Your task to perform on an android device: delete location history Image 0: 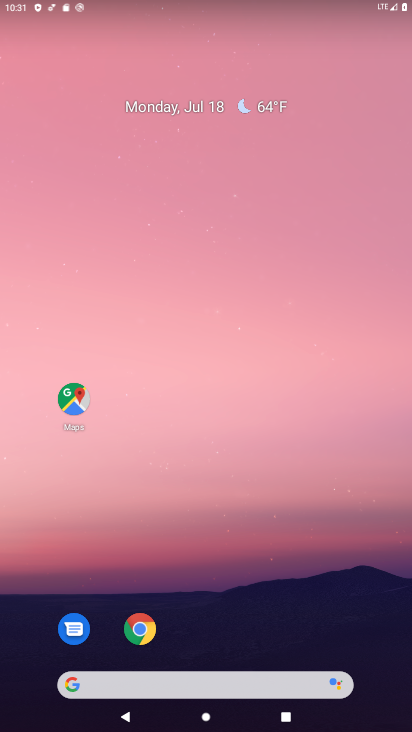
Step 0: drag from (350, 551) to (315, 24)
Your task to perform on an android device: delete location history Image 1: 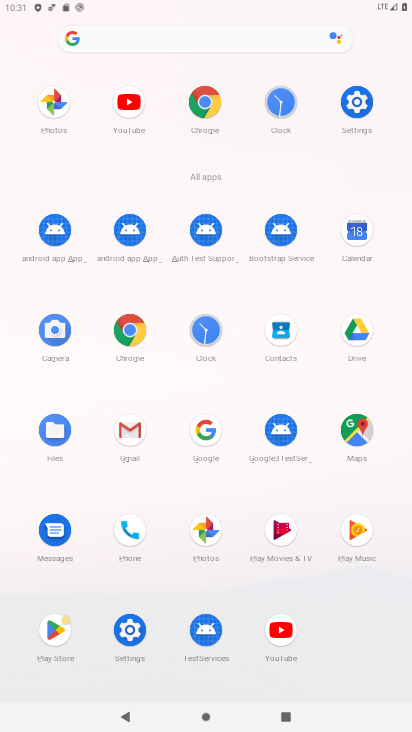
Step 1: click (125, 632)
Your task to perform on an android device: delete location history Image 2: 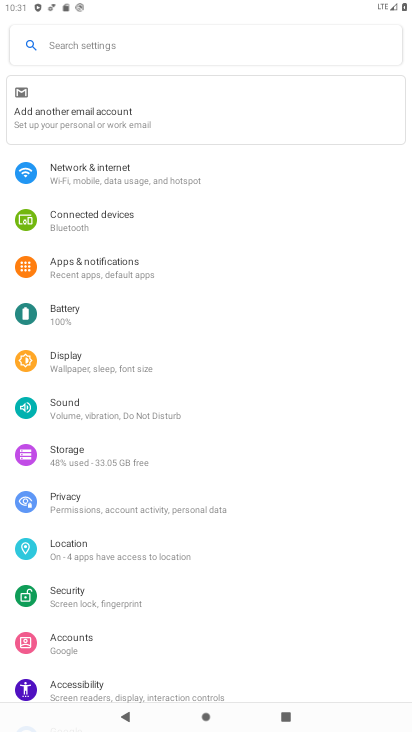
Step 2: click (135, 540)
Your task to perform on an android device: delete location history Image 3: 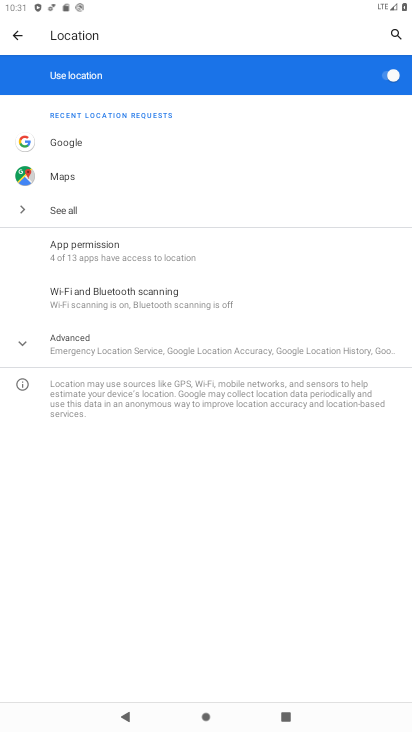
Step 3: click (46, 335)
Your task to perform on an android device: delete location history Image 4: 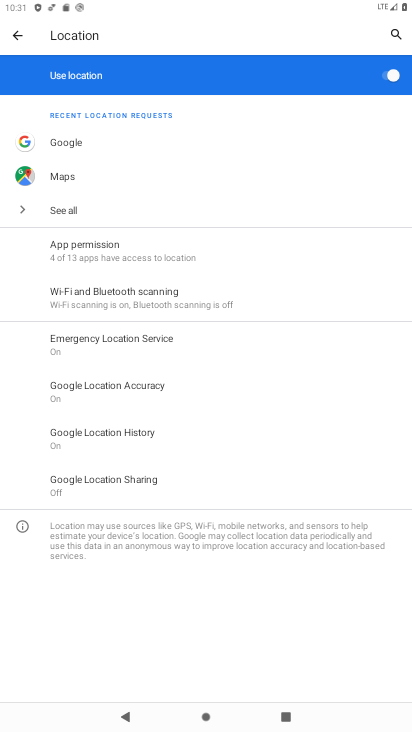
Step 4: click (122, 433)
Your task to perform on an android device: delete location history Image 5: 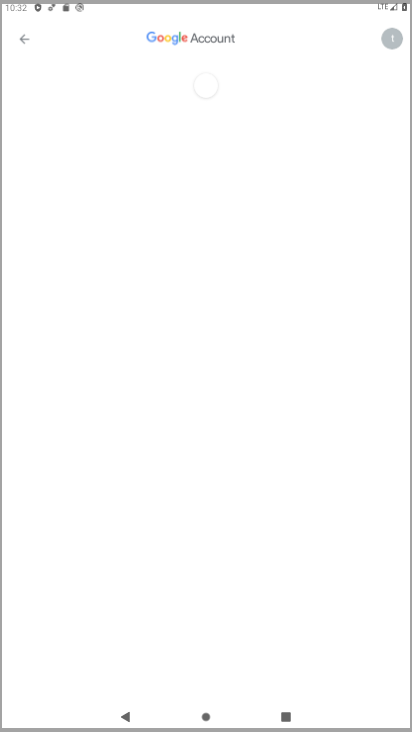
Step 5: drag from (222, 570) to (212, 70)
Your task to perform on an android device: delete location history Image 6: 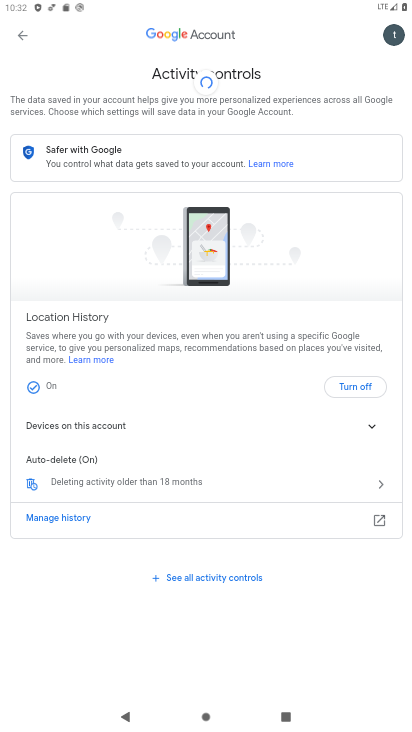
Step 6: click (73, 518)
Your task to perform on an android device: delete location history Image 7: 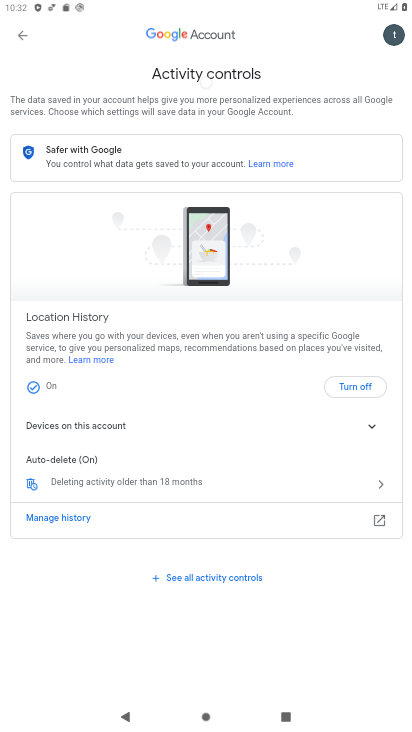
Step 7: click (73, 518)
Your task to perform on an android device: delete location history Image 8: 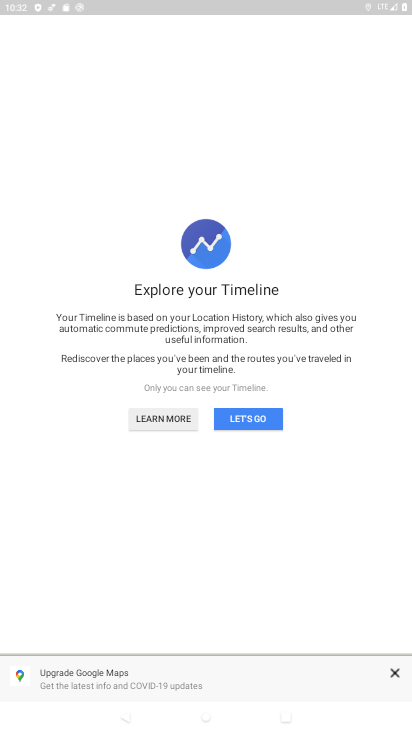
Step 8: click (255, 417)
Your task to perform on an android device: delete location history Image 9: 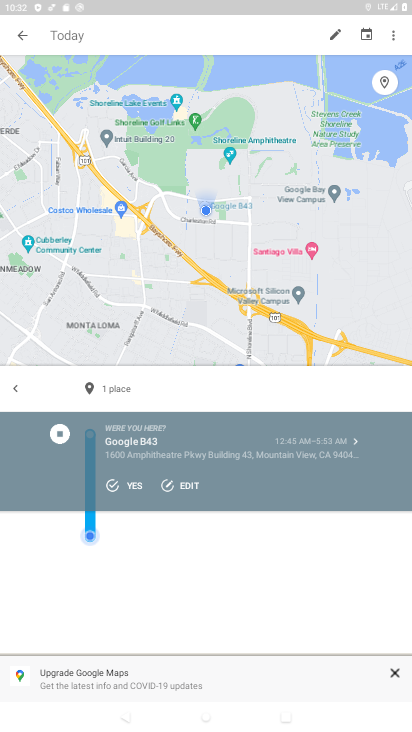
Step 9: click (389, 27)
Your task to perform on an android device: delete location history Image 10: 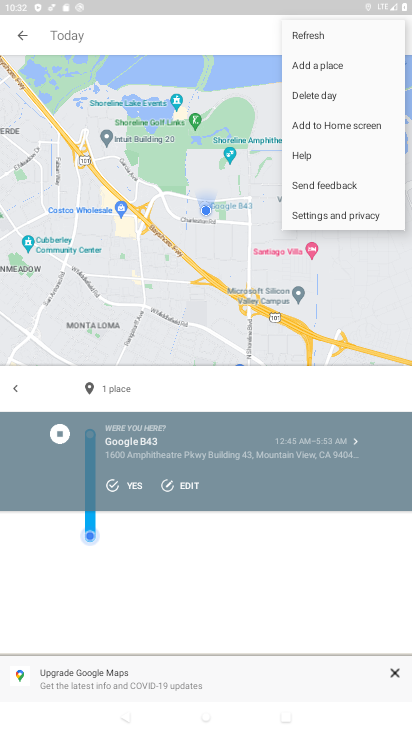
Step 10: click (308, 102)
Your task to perform on an android device: delete location history Image 11: 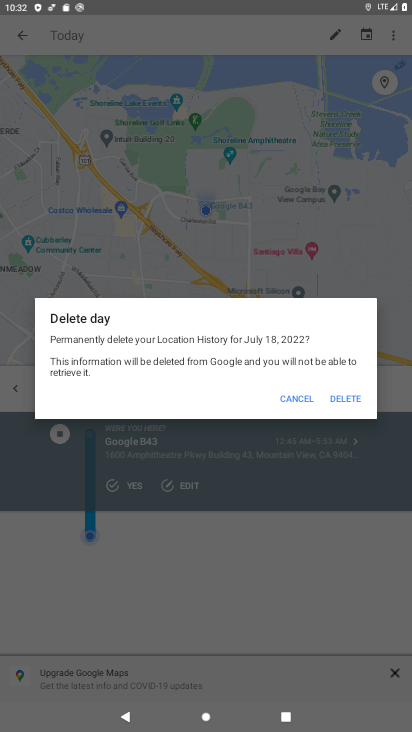
Step 11: click (343, 404)
Your task to perform on an android device: delete location history Image 12: 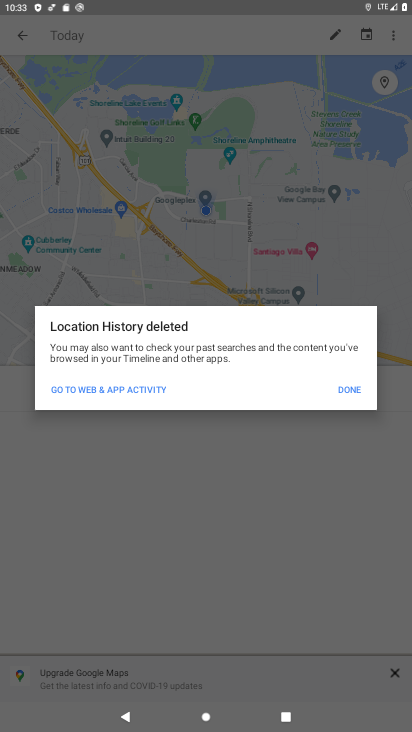
Step 12: click (353, 390)
Your task to perform on an android device: delete location history Image 13: 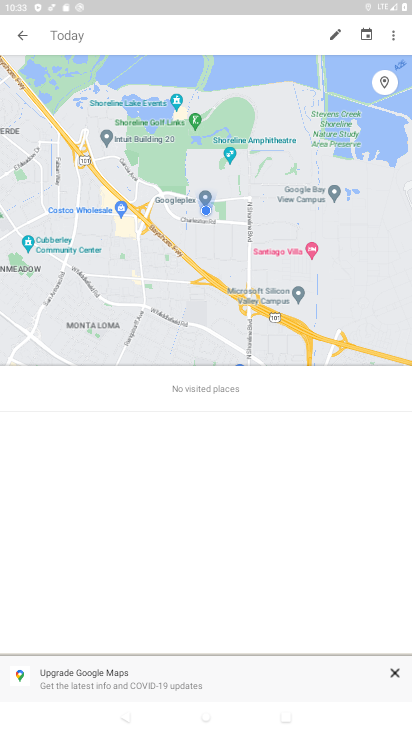
Step 13: task complete